Your task to perform on an android device: Open privacy settings Image 0: 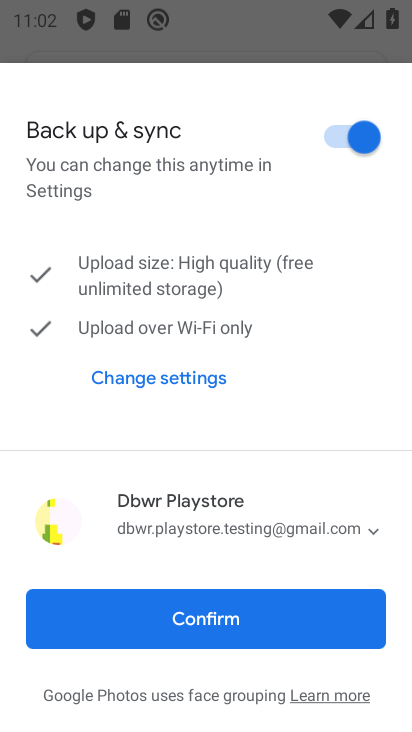
Step 0: press back button
Your task to perform on an android device: Open privacy settings Image 1: 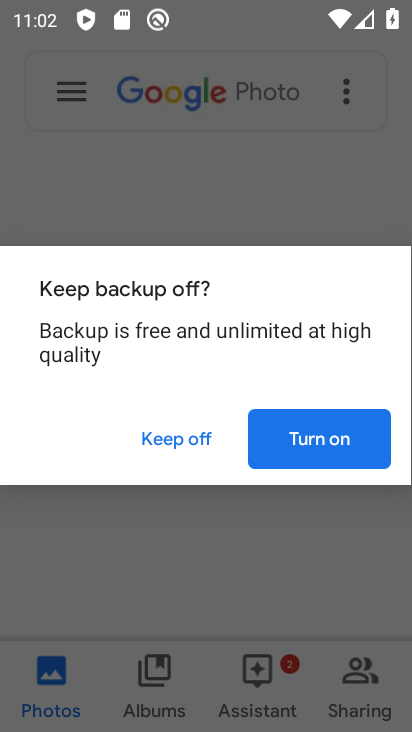
Step 1: press home button
Your task to perform on an android device: Open privacy settings Image 2: 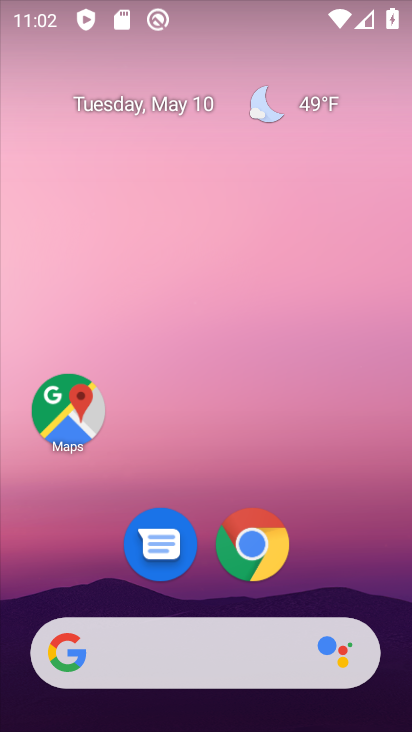
Step 2: click (249, 561)
Your task to perform on an android device: Open privacy settings Image 3: 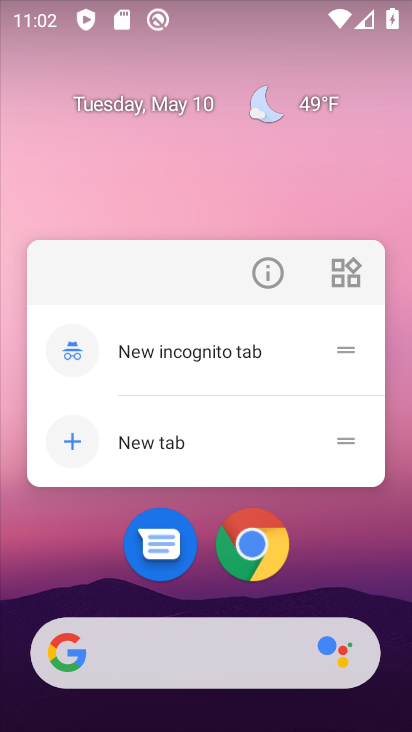
Step 3: click (249, 561)
Your task to perform on an android device: Open privacy settings Image 4: 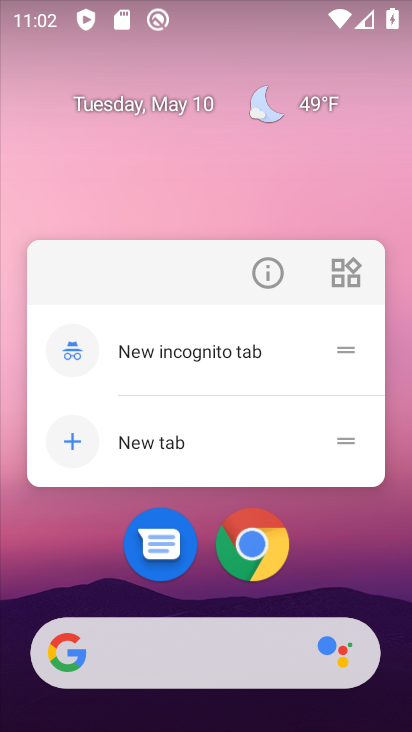
Step 4: click (253, 544)
Your task to perform on an android device: Open privacy settings Image 5: 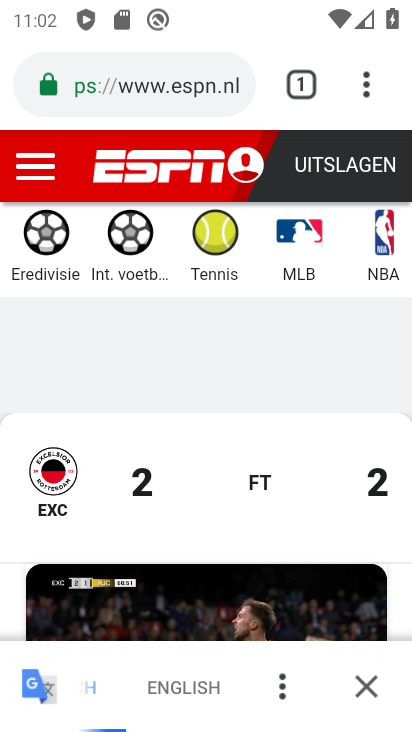
Step 5: drag from (380, 105) to (254, 624)
Your task to perform on an android device: Open privacy settings Image 6: 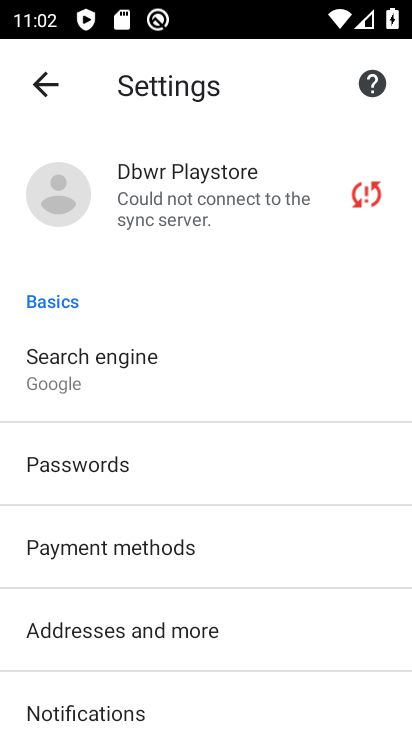
Step 6: drag from (175, 649) to (257, 305)
Your task to perform on an android device: Open privacy settings Image 7: 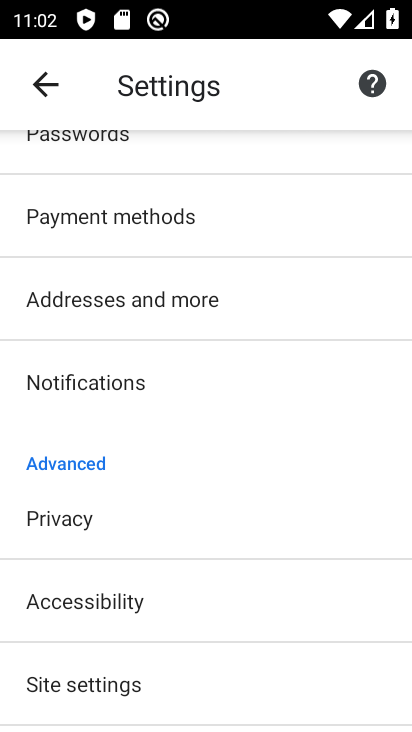
Step 7: click (166, 517)
Your task to perform on an android device: Open privacy settings Image 8: 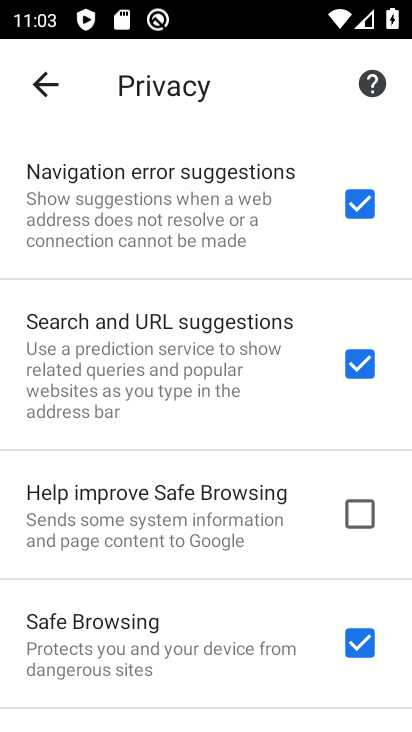
Step 8: task complete